Your task to perform on an android device: Open the stopwatch Image 0: 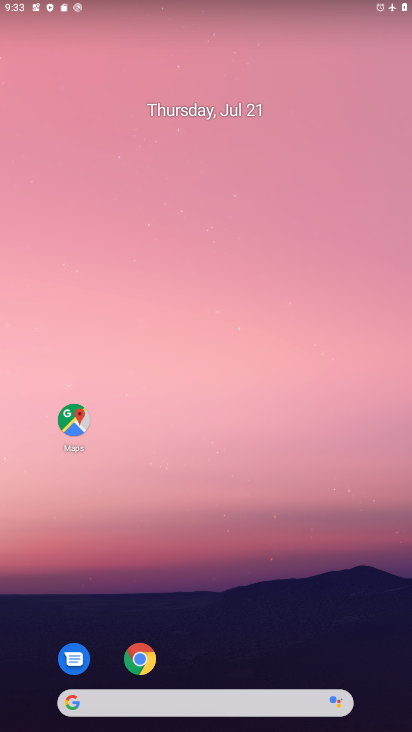
Step 0: drag from (213, 667) to (176, 17)
Your task to perform on an android device: Open the stopwatch Image 1: 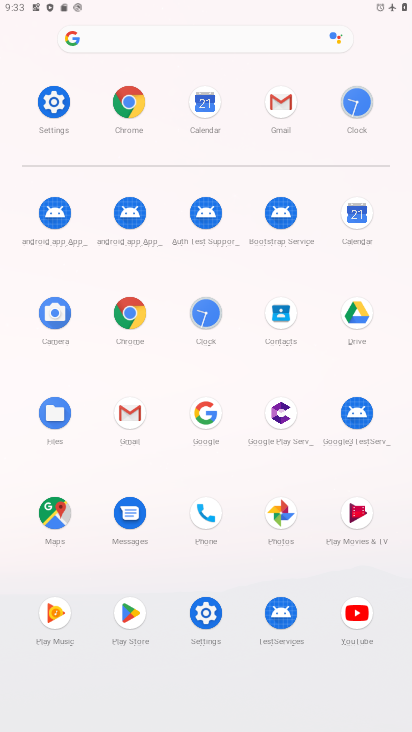
Step 1: click (207, 300)
Your task to perform on an android device: Open the stopwatch Image 2: 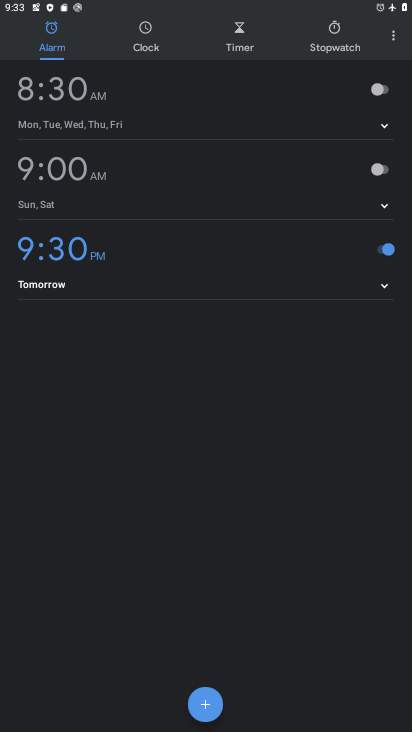
Step 2: click (319, 23)
Your task to perform on an android device: Open the stopwatch Image 3: 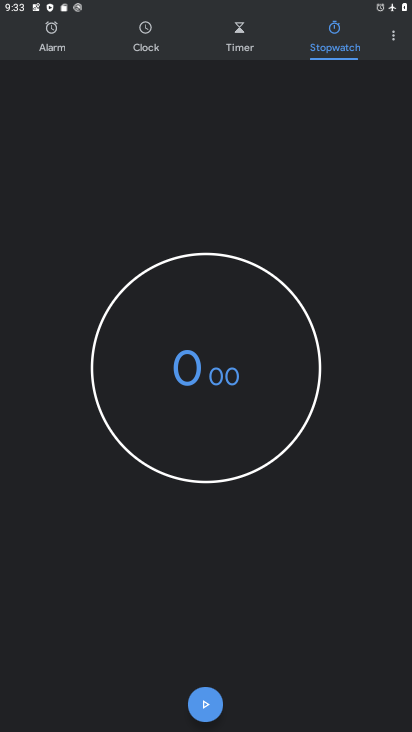
Step 3: task complete